Your task to perform on an android device: delete a single message in the gmail app Image 0: 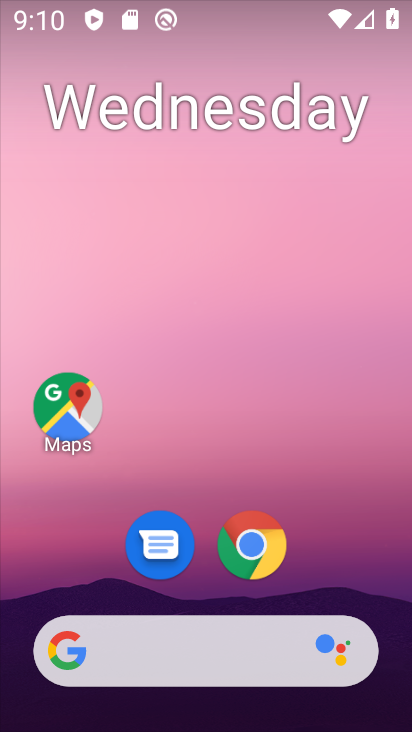
Step 0: drag from (345, 611) to (345, 179)
Your task to perform on an android device: delete a single message in the gmail app Image 1: 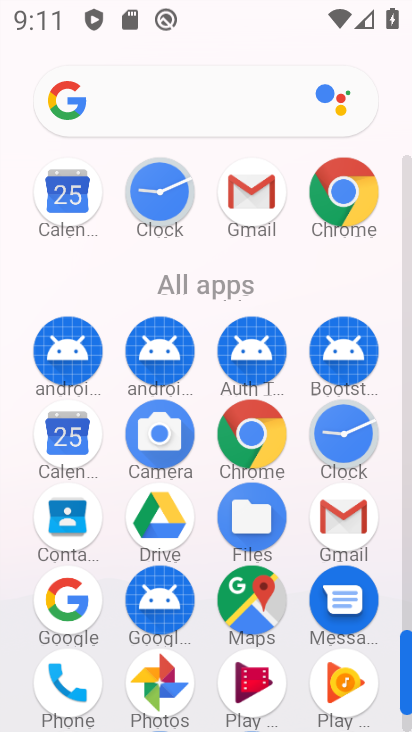
Step 1: click (252, 233)
Your task to perform on an android device: delete a single message in the gmail app Image 2: 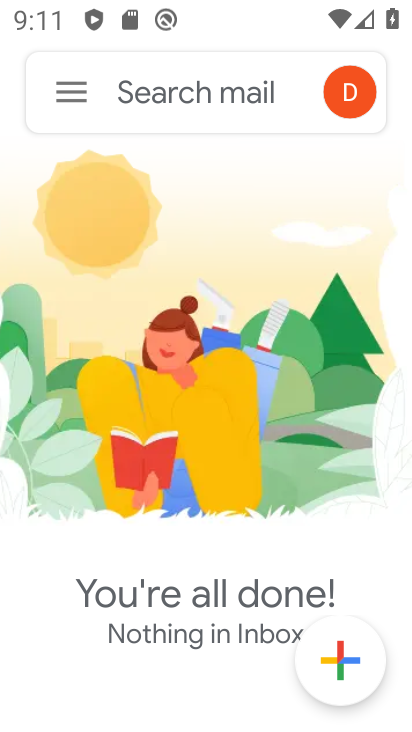
Step 2: click (69, 93)
Your task to perform on an android device: delete a single message in the gmail app Image 3: 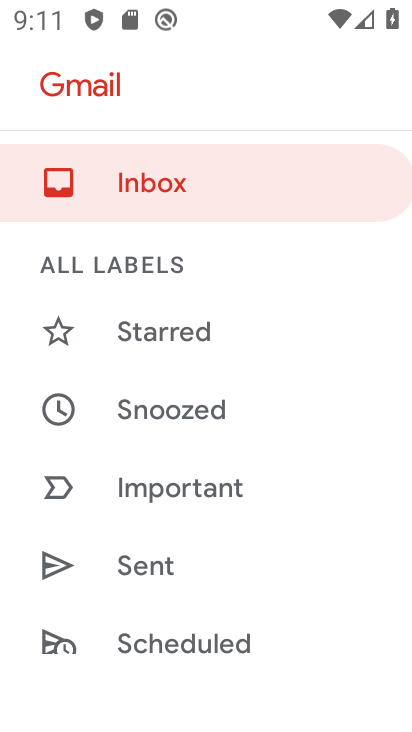
Step 3: click (260, 203)
Your task to perform on an android device: delete a single message in the gmail app Image 4: 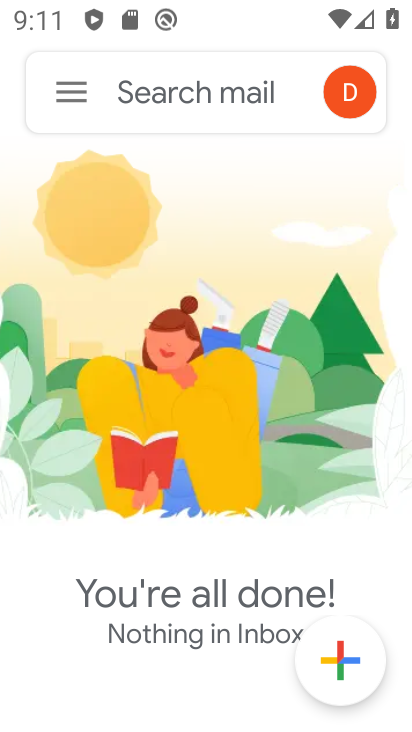
Step 4: task complete